Your task to perform on an android device: turn off airplane mode Image 0: 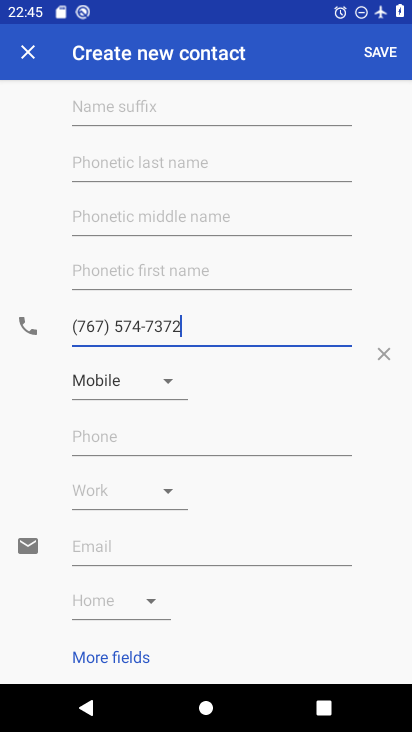
Step 0: press home button
Your task to perform on an android device: turn off airplane mode Image 1: 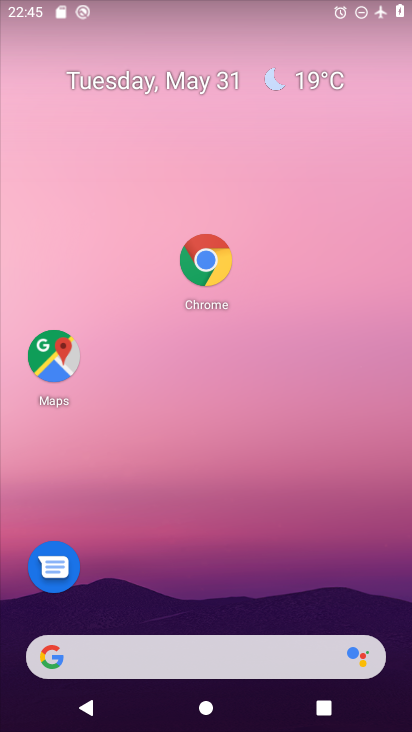
Step 1: drag from (177, 645) to (225, 126)
Your task to perform on an android device: turn off airplane mode Image 2: 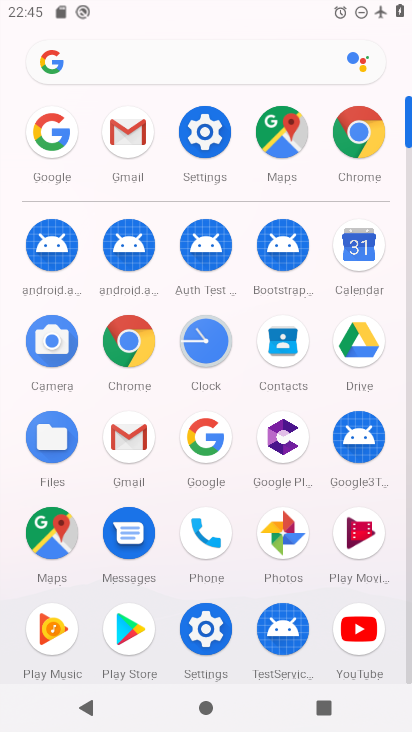
Step 2: click (218, 145)
Your task to perform on an android device: turn off airplane mode Image 3: 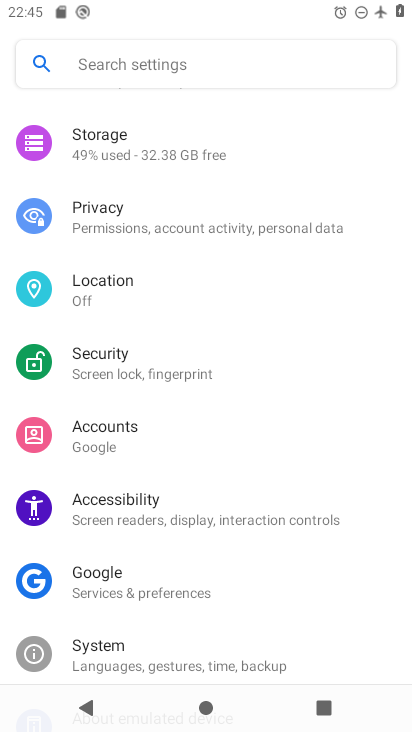
Step 3: drag from (159, 143) to (164, 350)
Your task to perform on an android device: turn off airplane mode Image 4: 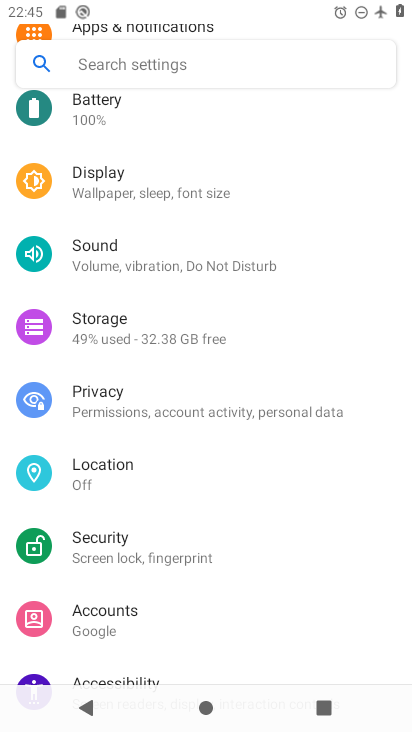
Step 4: drag from (156, 151) to (165, 516)
Your task to perform on an android device: turn off airplane mode Image 5: 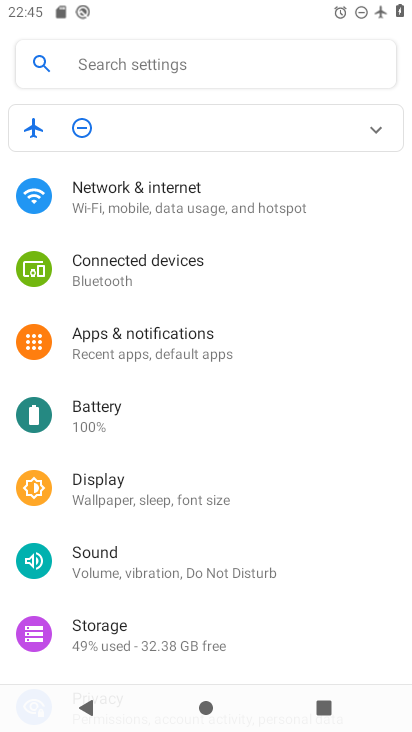
Step 5: click (161, 188)
Your task to perform on an android device: turn off airplane mode Image 6: 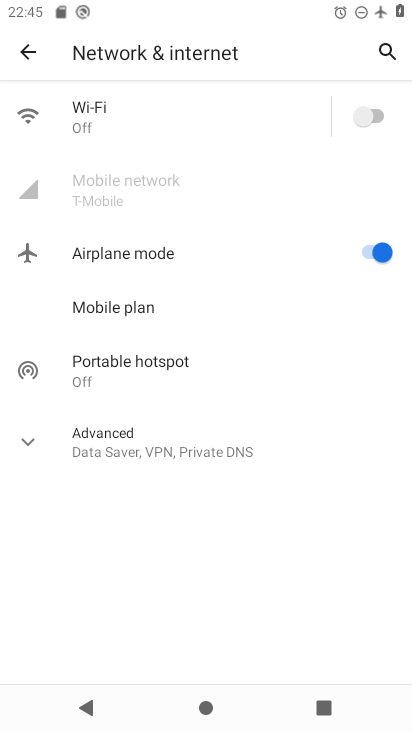
Step 6: click (361, 254)
Your task to perform on an android device: turn off airplane mode Image 7: 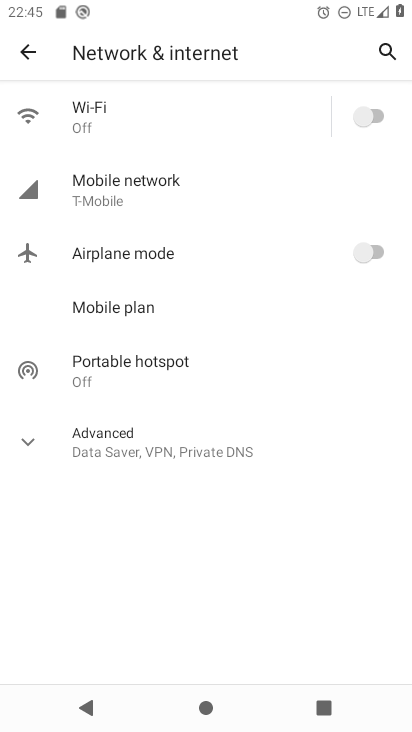
Step 7: task complete